Your task to perform on an android device: Open CNN.com Image 0: 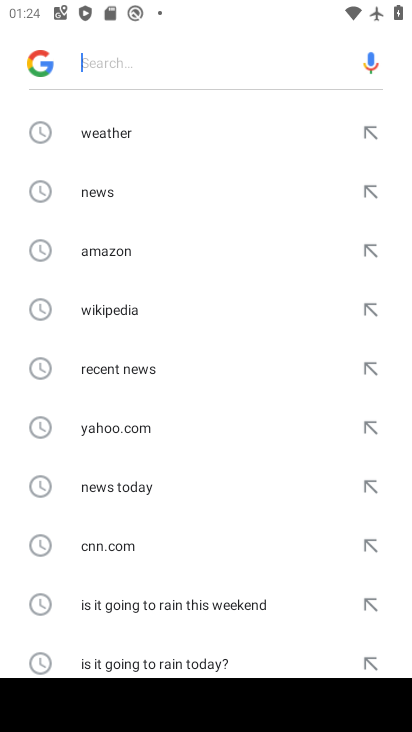
Step 0: type "cnn.com"
Your task to perform on an android device: Open CNN.com Image 1: 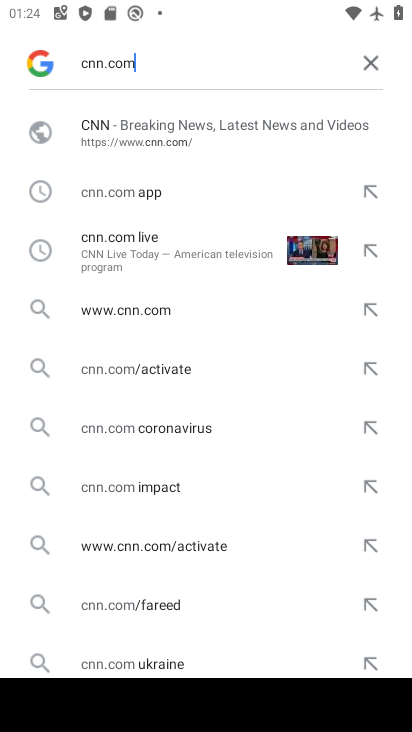
Step 1: click (134, 143)
Your task to perform on an android device: Open CNN.com Image 2: 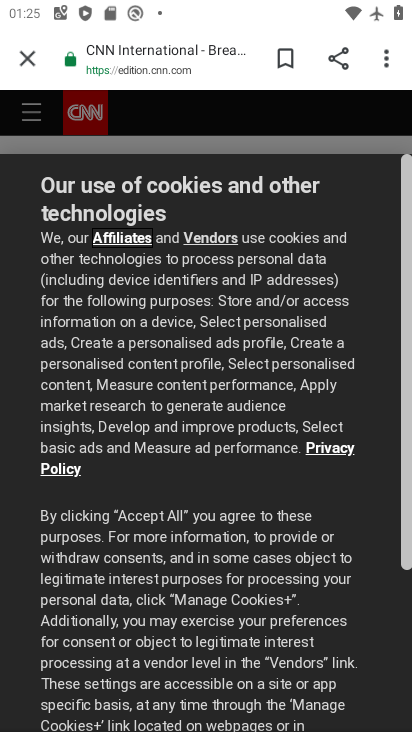
Step 2: task complete